Your task to perform on an android device: Open wifi settings Image 0: 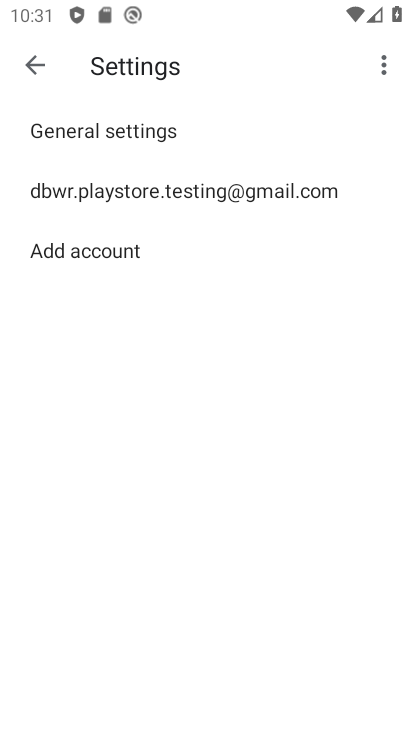
Step 0: press home button
Your task to perform on an android device: Open wifi settings Image 1: 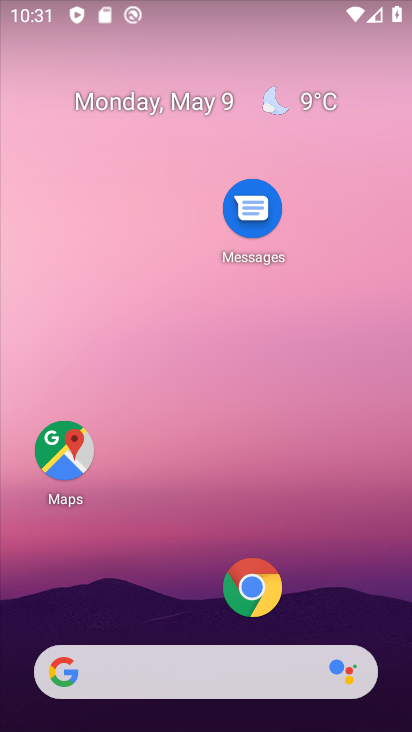
Step 1: drag from (214, 602) to (290, 84)
Your task to perform on an android device: Open wifi settings Image 2: 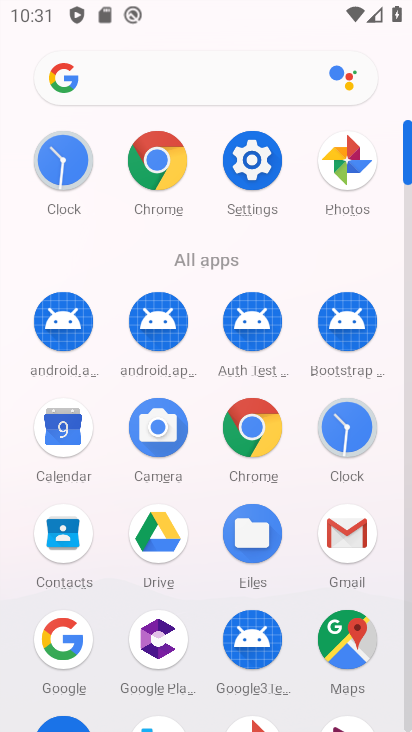
Step 2: click (243, 170)
Your task to perform on an android device: Open wifi settings Image 3: 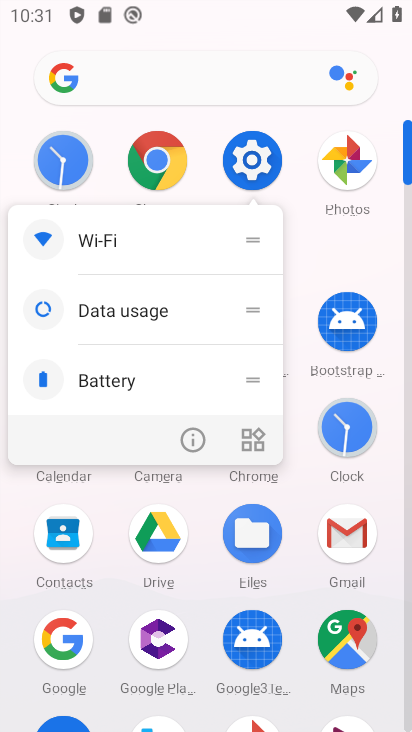
Step 3: click (100, 256)
Your task to perform on an android device: Open wifi settings Image 4: 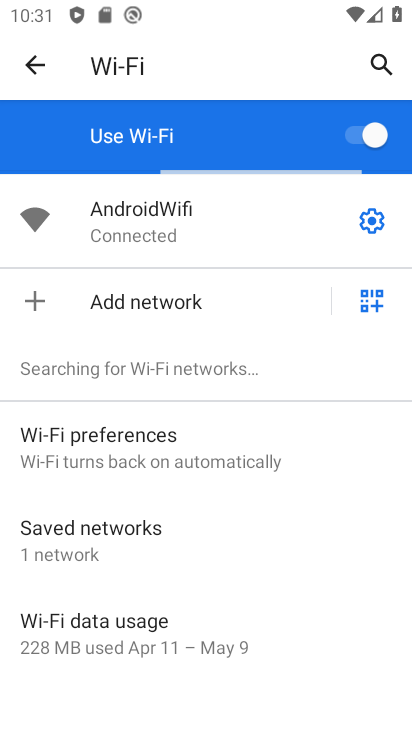
Step 4: click (375, 231)
Your task to perform on an android device: Open wifi settings Image 5: 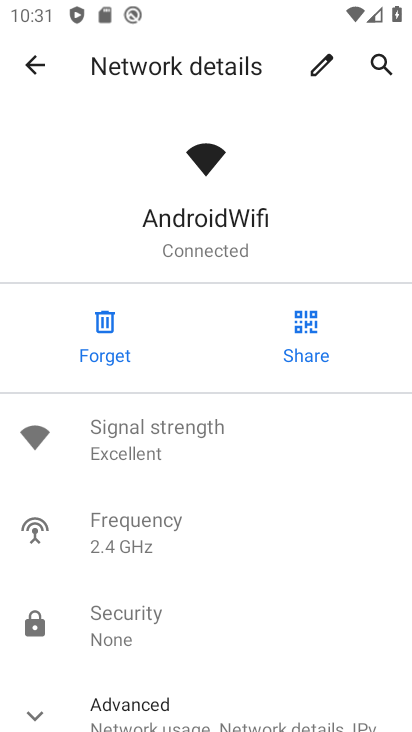
Step 5: task complete